Your task to perform on an android device: Show me popular games on the Play Store Image 0: 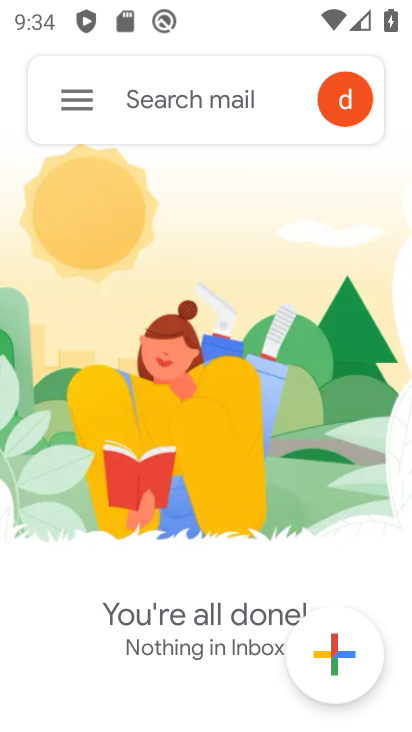
Step 0: press home button
Your task to perform on an android device: Show me popular games on the Play Store Image 1: 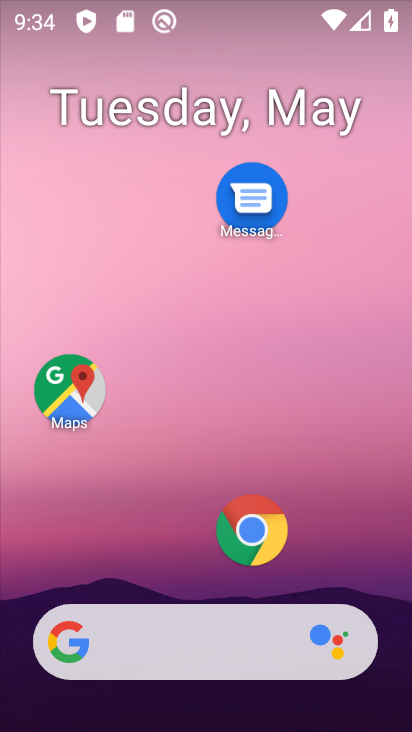
Step 1: drag from (196, 586) to (194, 237)
Your task to perform on an android device: Show me popular games on the Play Store Image 2: 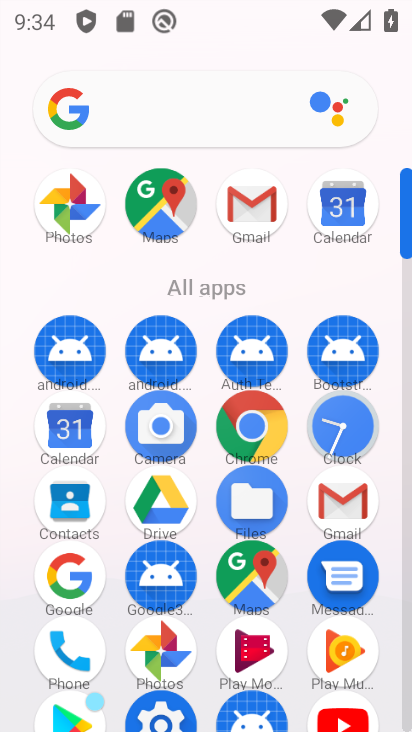
Step 2: drag from (117, 666) to (119, 512)
Your task to perform on an android device: Show me popular games on the Play Store Image 3: 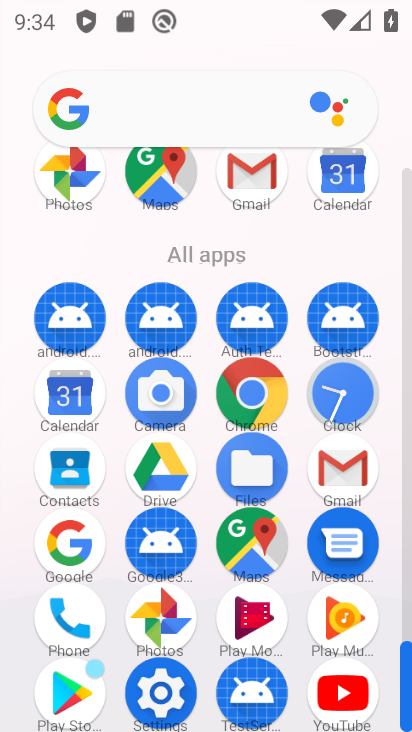
Step 3: click (60, 691)
Your task to perform on an android device: Show me popular games on the Play Store Image 4: 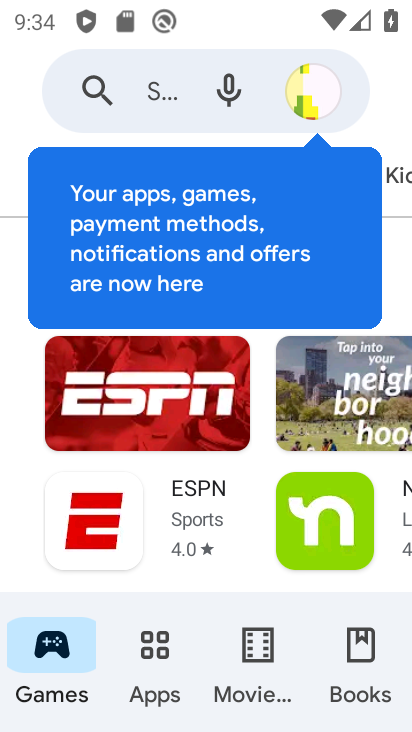
Step 4: task complete